Your task to perform on an android device: Open Amazon Image 0: 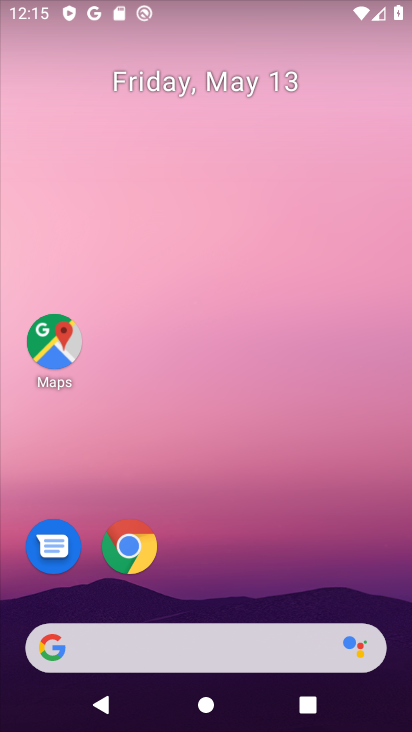
Step 0: click (182, 72)
Your task to perform on an android device: Open Amazon Image 1: 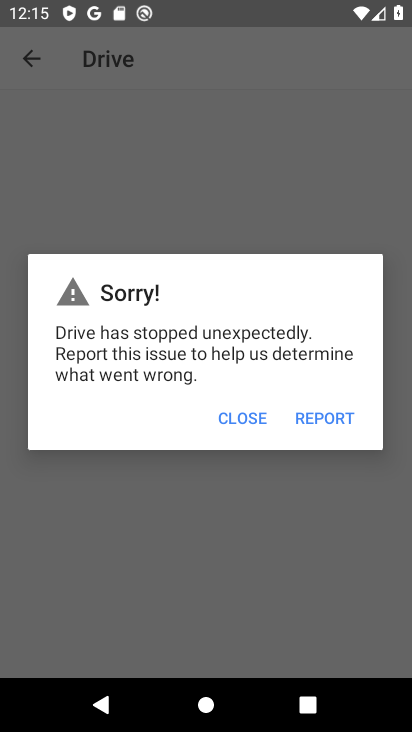
Step 1: drag from (288, 419) to (200, 135)
Your task to perform on an android device: Open Amazon Image 2: 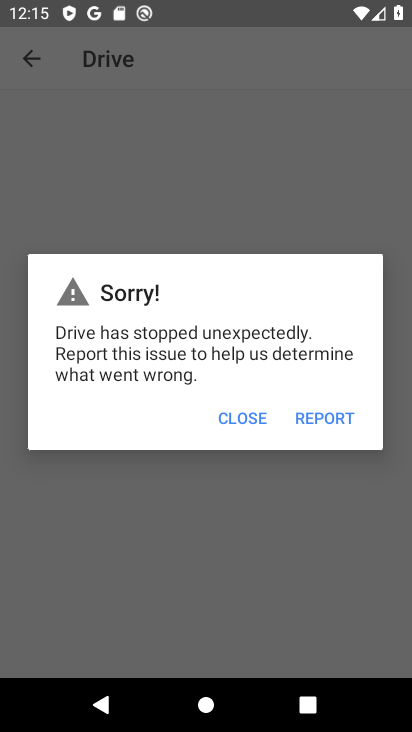
Step 2: click (258, 422)
Your task to perform on an android device: Open Amazon Image 3: 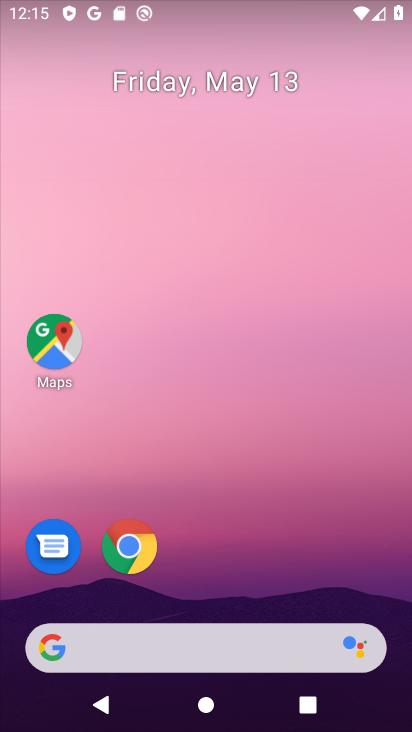
Step 3: drag from (221, 540) to (186, 172)
Your task to perform on an android device: Open Amazon Image 4: 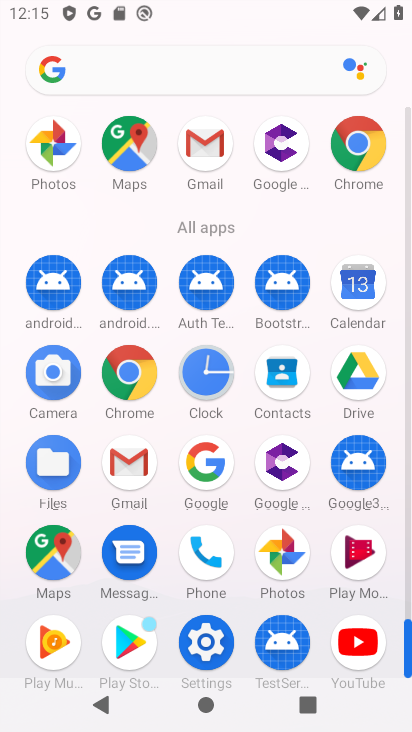
Step 4: click (363, 133)
Your task to perform on an android device: Open Amazon Image 5: 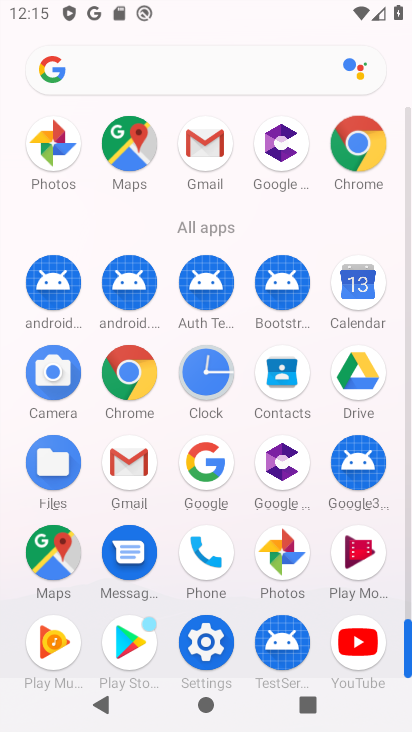
Step 5: click (364, 132)
Your task to perform on an android device: Open Amazon Image 6: 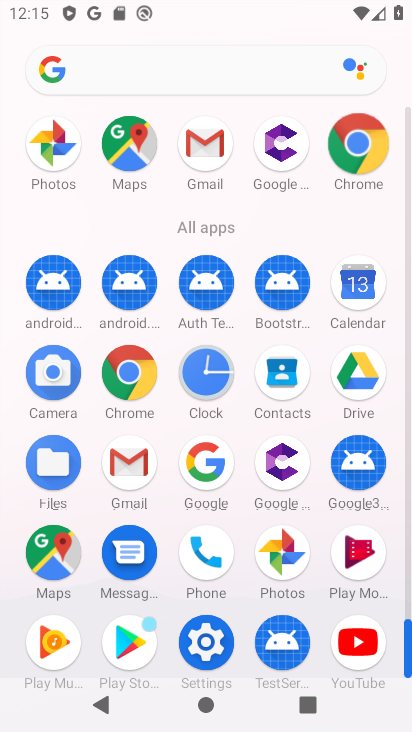
Step 6: click (361, 135)
Your task to perform on an android device: Open Amazon Image 7: 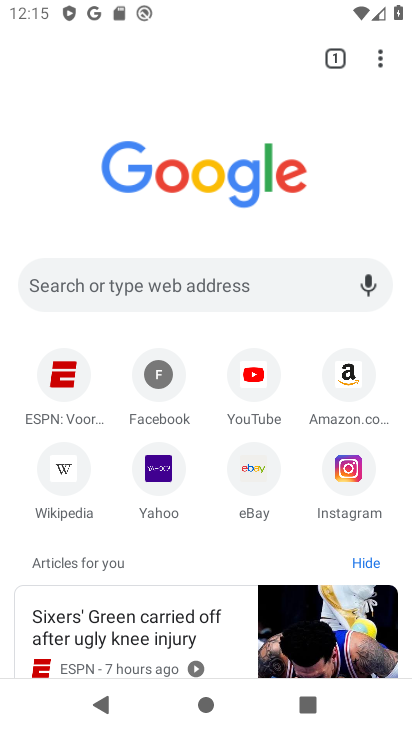
Step 7: click (353, 374)
Your task to perform on an android device: Open Amazon Image 8: 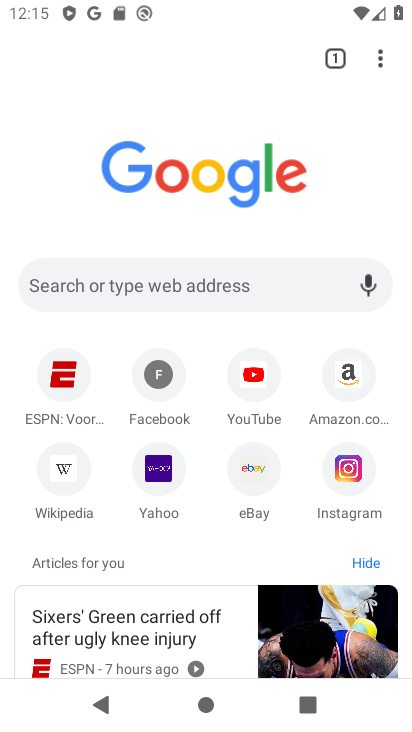
Step 8: click (349, 373)
Your task to perform on an android device: Open Amazon Image 9: 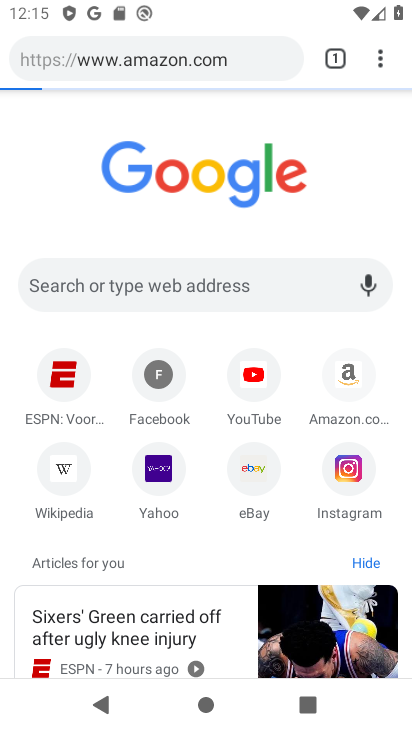
Step 9: click (349, 373)
Your task to perform on an android device: Open Amazon Image 10: 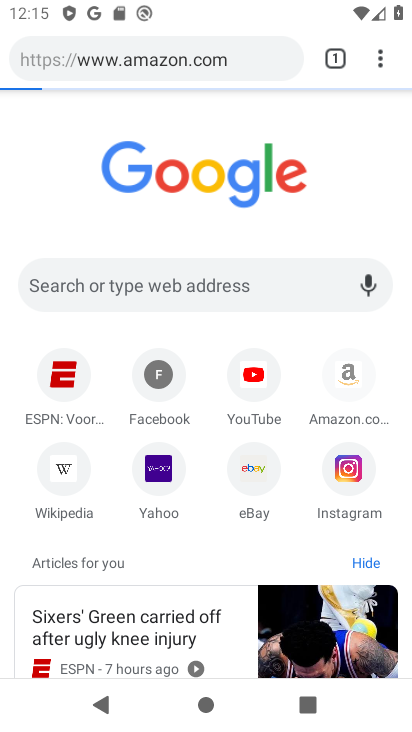
Step 10: click (351, 377)
Your task to perform on an android device: Open Amazon Image 11: 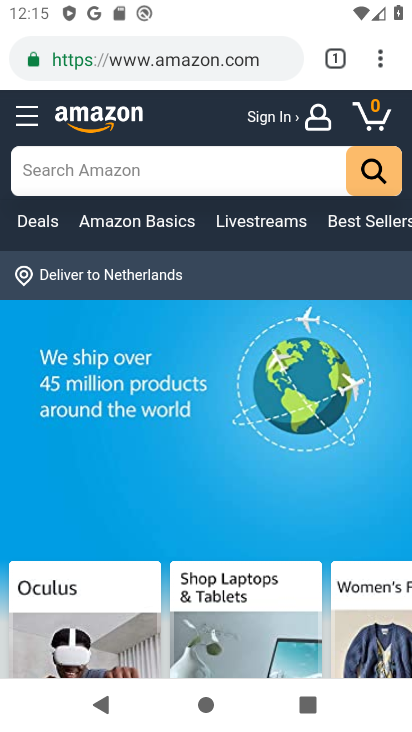
Step 11: task complete